Your task to perform on an android device: toggle pop-ups in chrome Image 0: 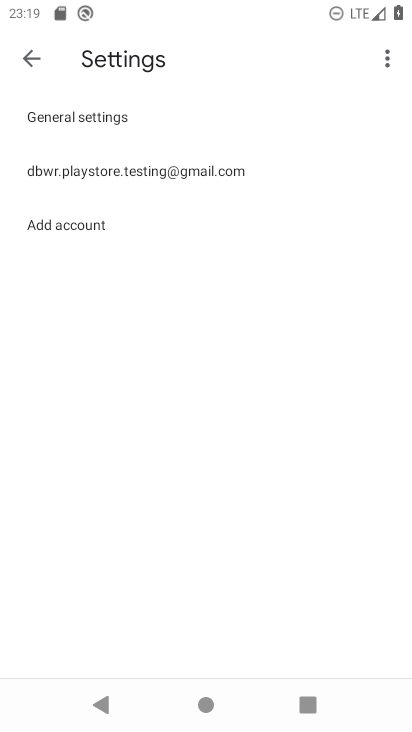
Step 0: press home button
Your task to perform on an android device: toggle pop-ups in chrome Image 1: 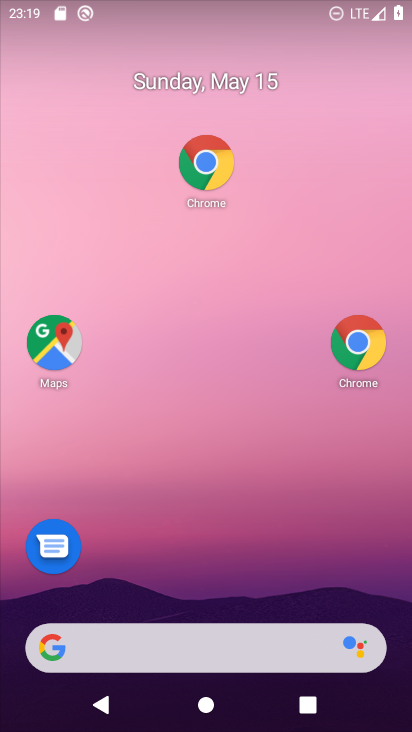
Step 1: drag from (177, 514) to (226, 335)
Your task to perform on an android device: toggle pop-ups in chrome Image 2: 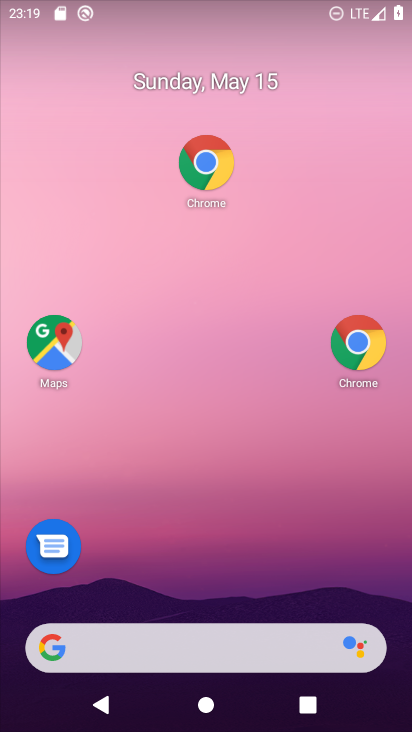
Step 2: click (208, 143)
Your task to perform on an android device: toggle pop-ups in chrome Image 3: 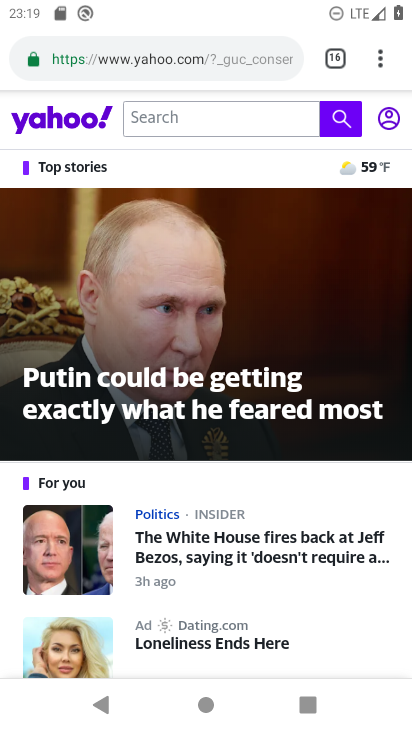
Step 3: click (367, 52)
Your task to perform on an android device: toggle pop-ups in chrome Image 4: 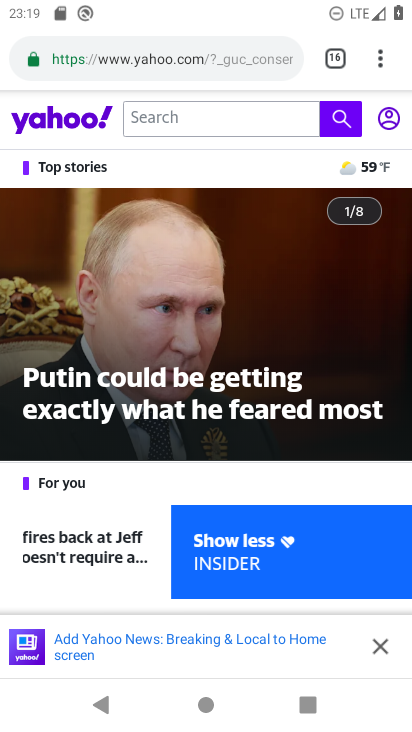
Step 4: click (359, 57)
Your task to perform on an android device: toggle pop-ups in chrome Image 5: 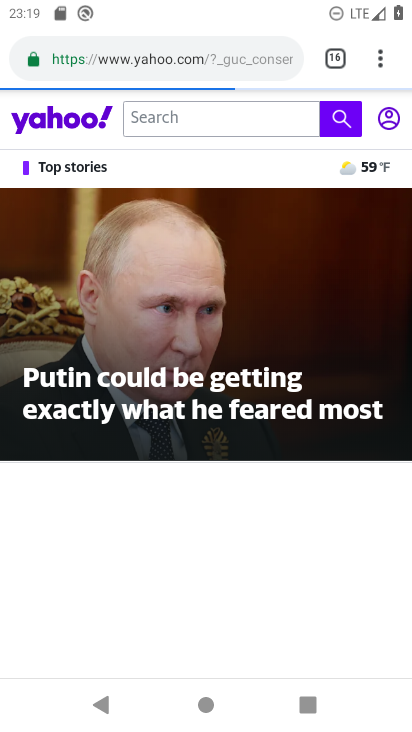
Step 5: click (370, 38)
Your task to perform on an android device: toggle pop-ups in chrome Image 6: 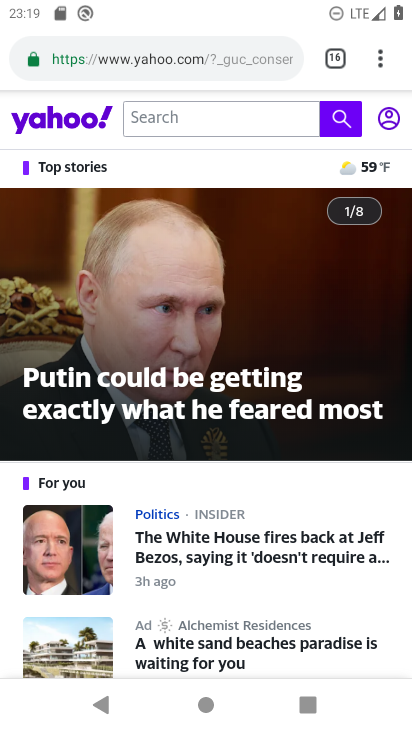
Step 6: click (385, 57)
Your task to perform on an android device: toggle pop-ups in chrome Image 7: 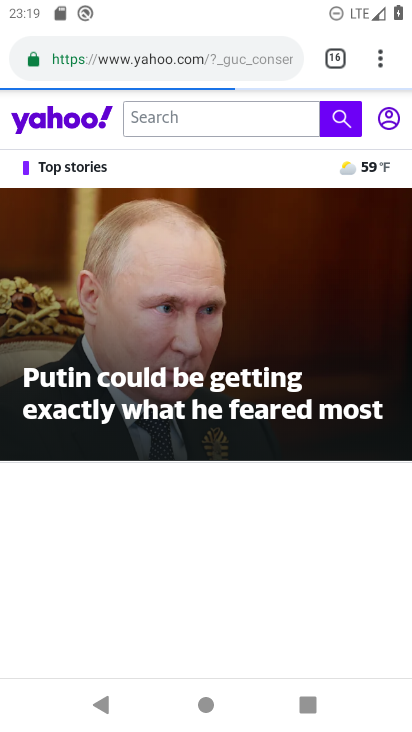
Step 7: click (385, 57)
Your task to perform on an android device: toggle pop-ups in chrome Image 8: 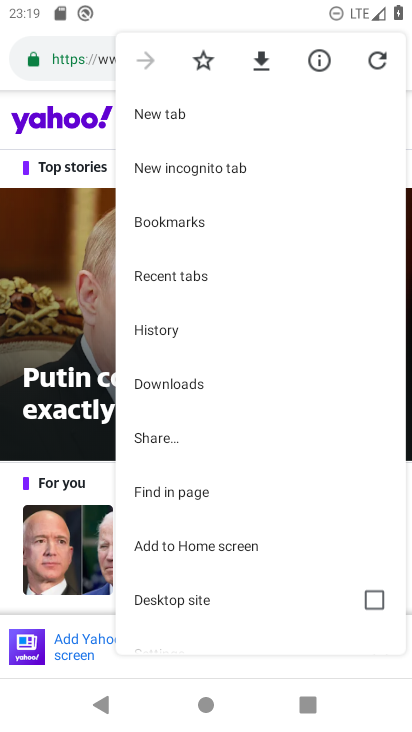
Step 8: drag from (242, 590) to (324, 235)
Your task to perform on an android device: toggle pop-ups in chrome Image 9: 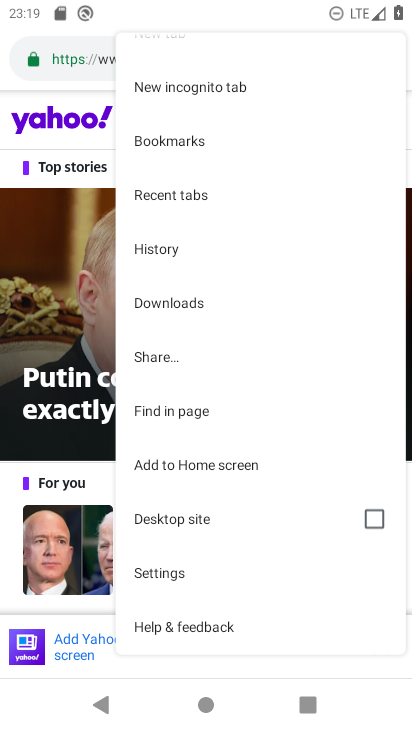
Step 9: click (172, 560)
Your task to perform on an android device: toggle pop-ups in chrome Image 10: 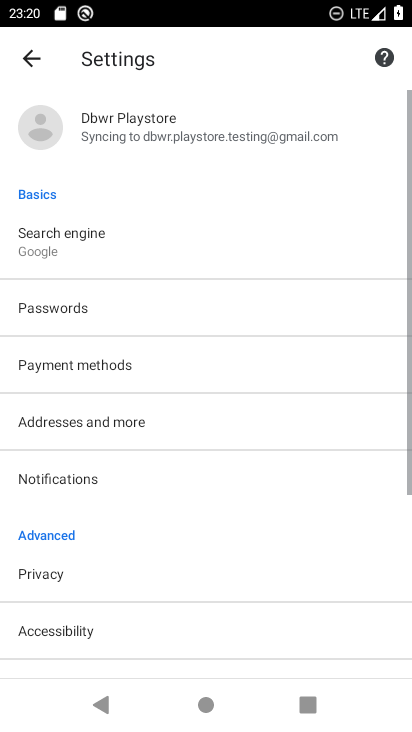
Step 10: drag from (127, 615) to (206, 263)
Your task to perform on an android device: toggle pop-ups in chrome Image 11: 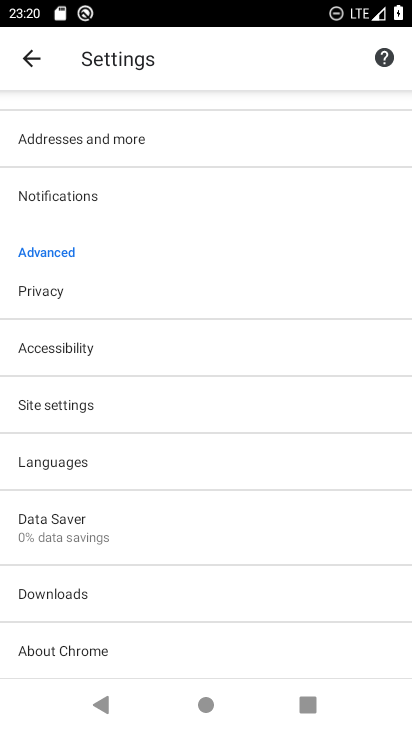
Step 11: drag from (117, 635) to (242, 161)
Your task to perform on an android device: toggle pop-ups in chrome Image 12: 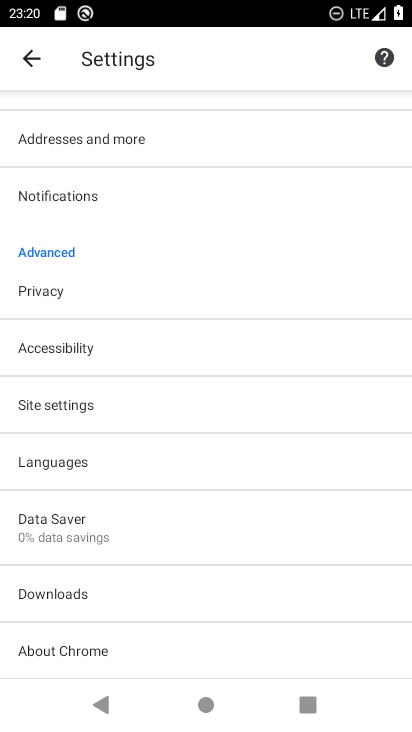
Step 12: click (79, 414)
Your task to perform on an android device: toggle pop-ups in chrome Image 13: 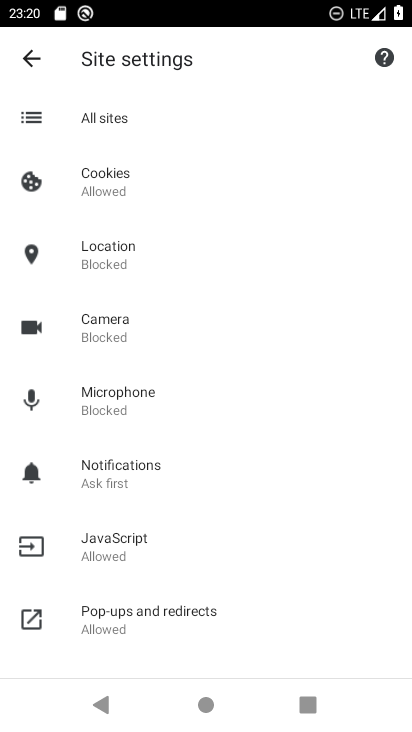
Step 13: click (149, 606)
Your task to perform on an android device: toggle pop-ups in chrome Image 14: 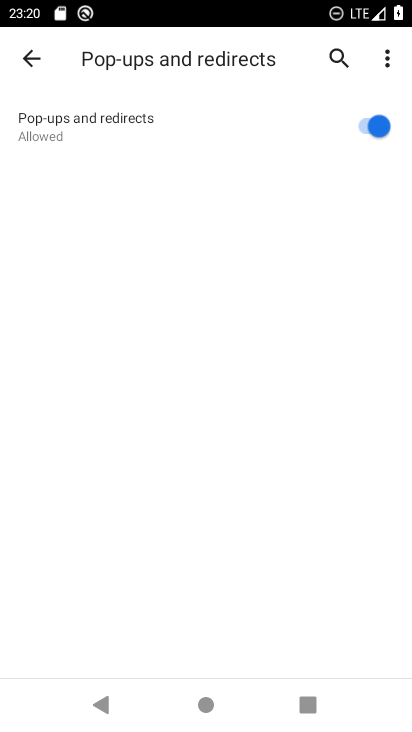
Step 14: task complete